Your task to perform on an android device: Open Google Chrome Image 0: 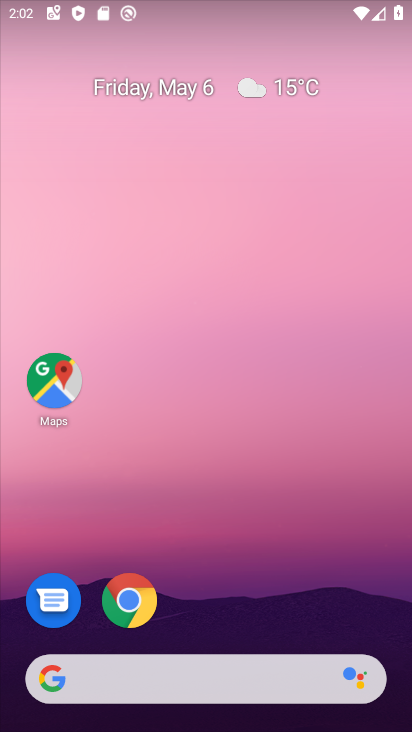
Step 0: drag from (312, 600) to (317, 5)
Your task to perform on an android device: Open Google Chrome Image 1: 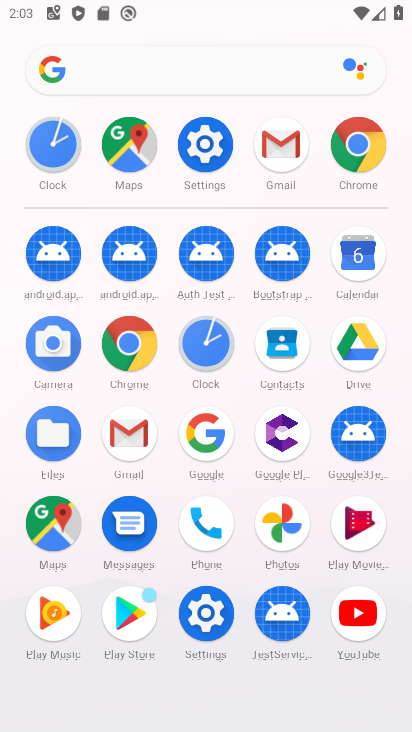
Step 1: click (131, 370)
Your task to perform on an android device: Open Google Chrome Image 2: 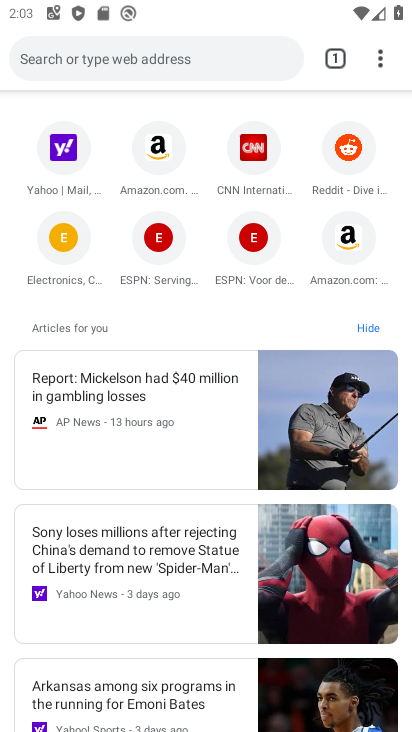
Step 2: task complete